Your task to perform on an android device: allow notifications from all sites in the chrome app Image 0: 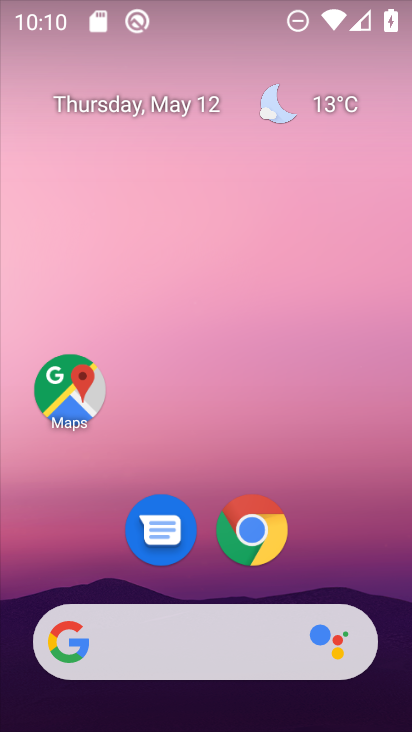
Step 0: click (281, 547)
Your task to perform on an android device: allow notifications from all sites in the chrome app Image 1: 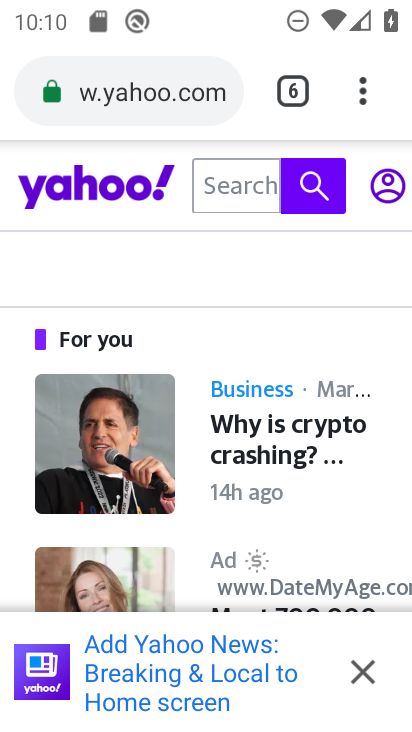
Step 1: click (358, 80)
Your task to perform on an android device: allow notifications from all sites in the chrome app Image 2: 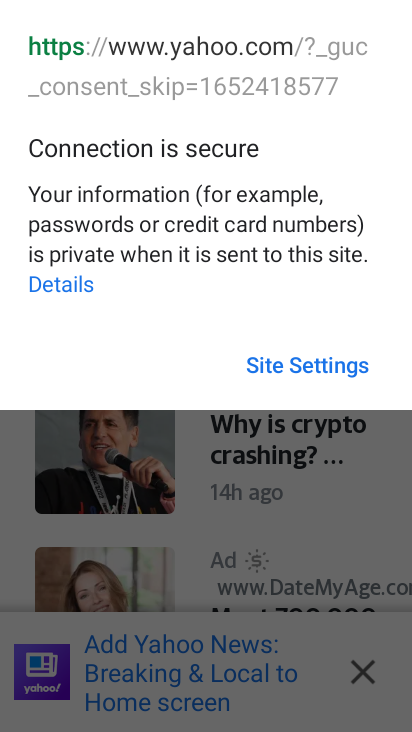
Step 2: click (343, 368)
Your task to perform on an android device: allow notifications from all sites in the chrome app Image 3: 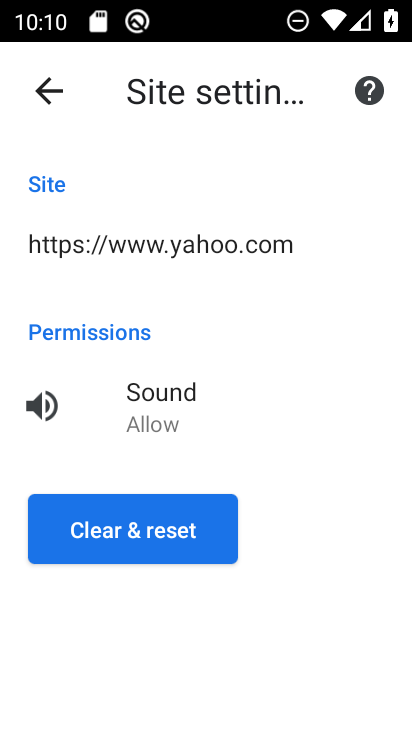
Step 3: click (24, 83)
Your task to perform on an android device: allow notifications from all sites in the chrome app Image 4: 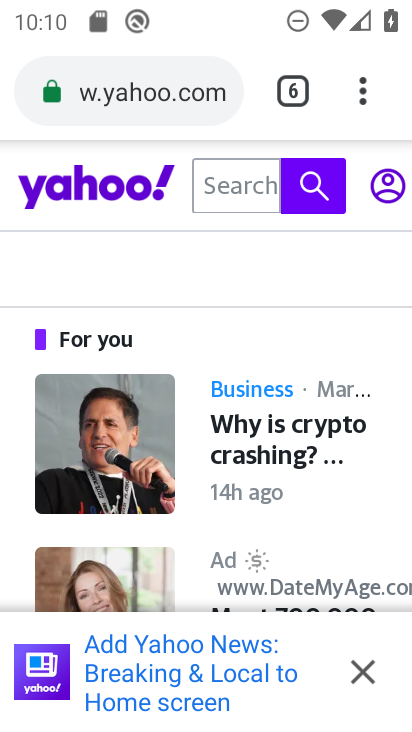
Step 4: click (306, 97)
Your task to perform on an android device: allow notifications from all sites in the chrome app Image 5: 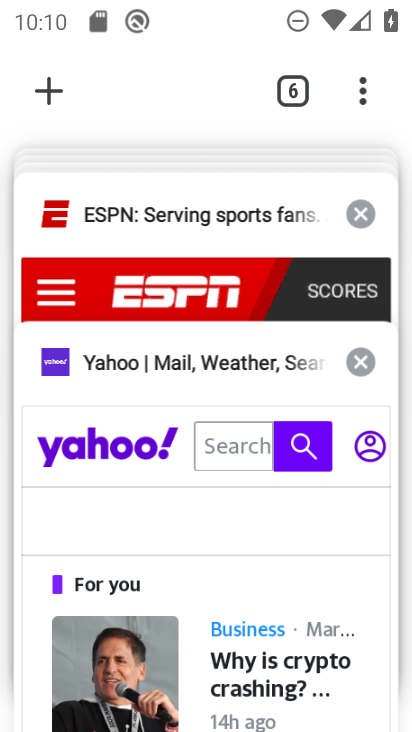
Step 5: click (27, 74)
Your task to perform on an android device: allow notifications from all sites in the chrome app Image 6: 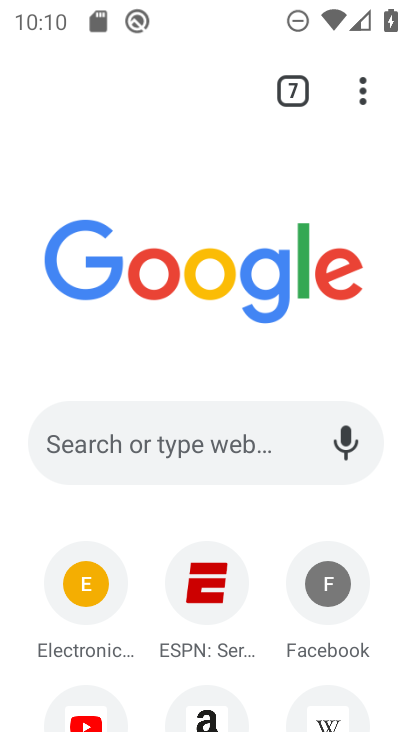
Step 6: click (380, 110)
Your task to perform on an android device: allow notifications from all sites in the chrome app Image 7: 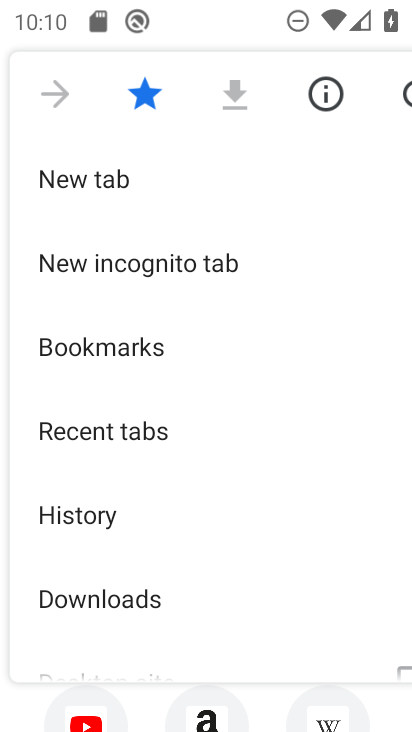
Step 7: drag from (282, 527) to (331, 116)
Your task to perform on an android device: allow notifications from all sites in the chrome app Image 8: 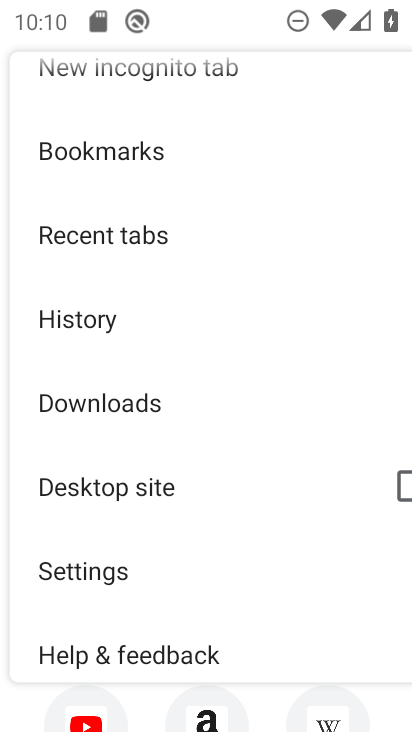
Step 8: drag from (249, 561) to (253, 154)
Your task to perform on an android device: allow notifications from all sites in the chrome app Image 9: 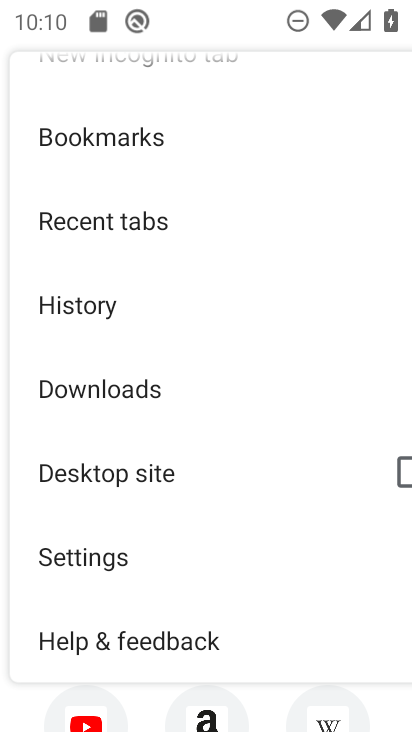
Step 9: click (156, 541)
Your task to perform on an android device: allow notifications from all sites in the chrome app Image 10: 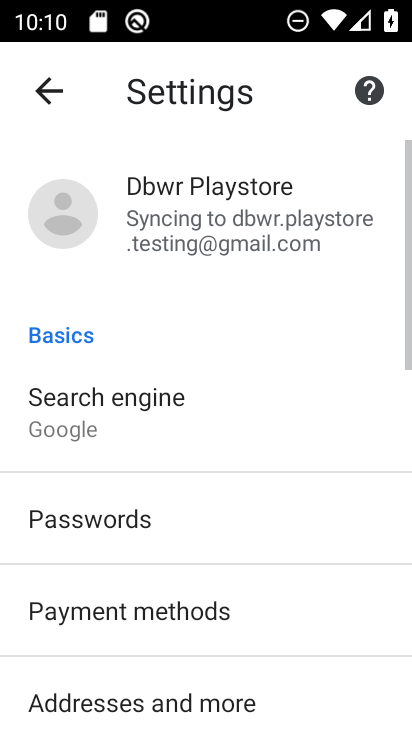
Step 10: drag from (252, 577) to (282, 198)
Your task to perform on an android device: allow notifications from all sites in the chrome app Image 11: 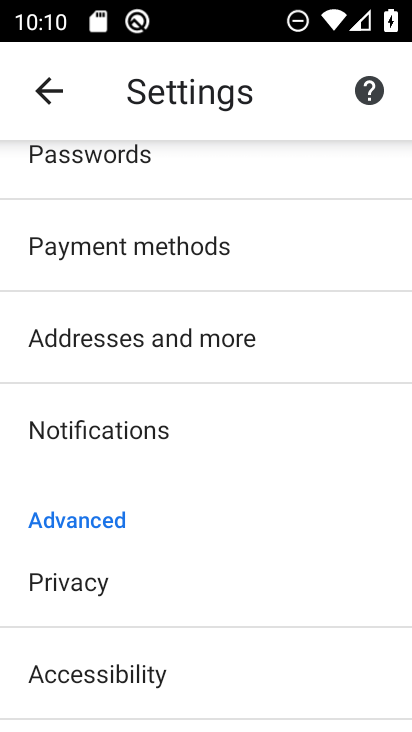
Step 11: click (262, 438)
Your task to perform on an android device: allow notifications from all sites in the chrome app Image 12: 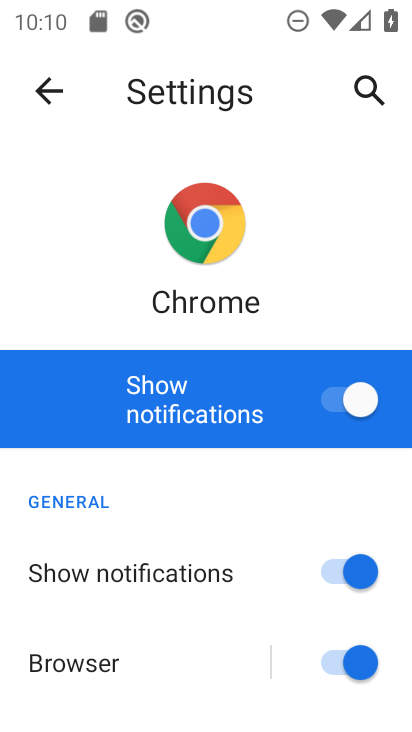
Step 12: task complete